Your task to perform on an android device: Set the phone to "Do not disturb". Image 0: 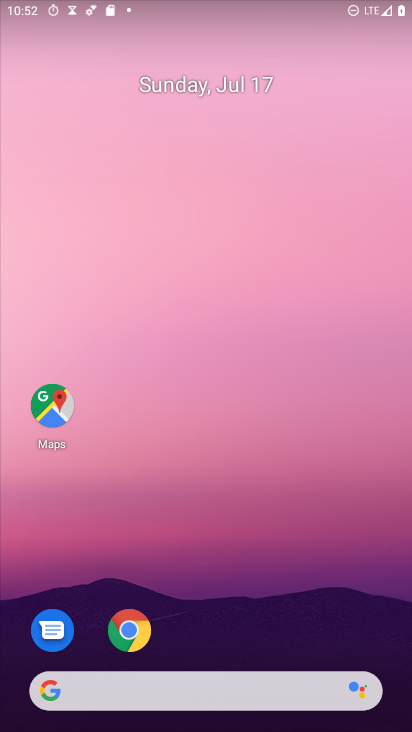
Step 0: drag from (223, 685) to (201, 9)
Your task to perform on an android device: Set the phone to "Do not disturb". Image 1: 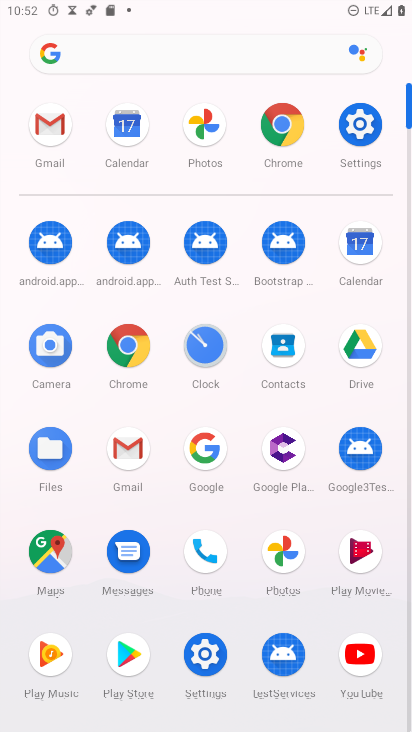
Step 1: click (348, 109)
Your task to perform on an android device: Set the phone to "Do not disturb". Image 2: 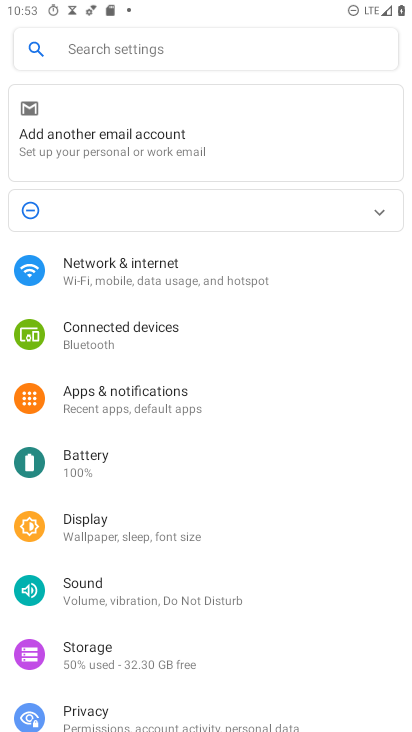
Step 2: click (138, 588)
Your task to perform on an android device: Set the phone to "Do not disturb". Image 3: 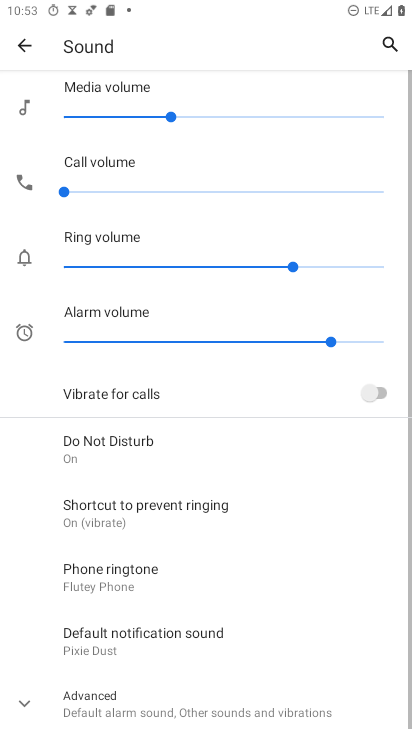
Step 3: drag from (220, 631) to (205, 448)
Your task to perform on an android device: Set the phone to "Do not disturb". Image 4: 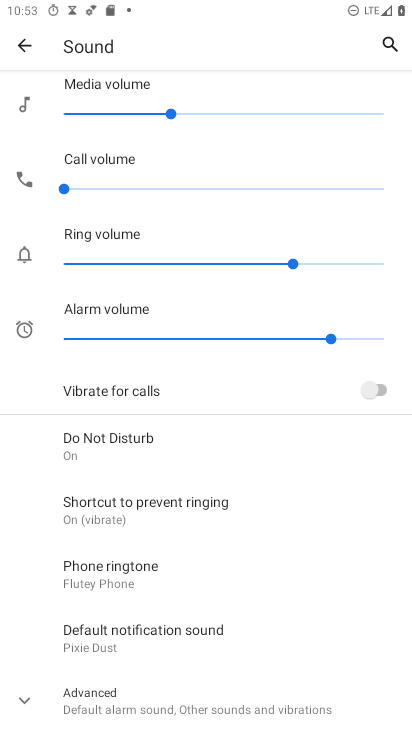
Step 4: click (161, 443)
Your task to perform on an android device: Set the phone to "Do not disturb". Image 5: 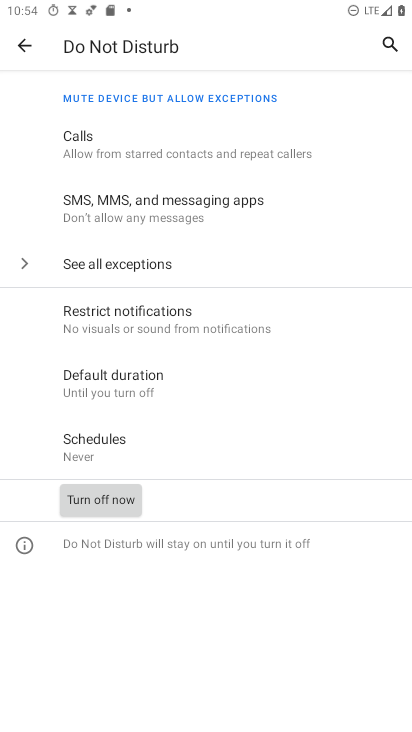
Step 5: task complete